Your task to perform on an android device: turn on bluetooth scan Image 0: 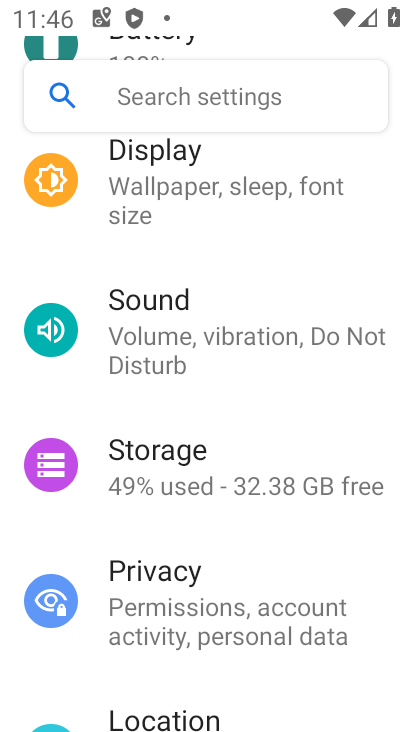
Step 0: drag from (274, 514) to (300, 215)
Your task to perform on an android device: turn on bluetooth scan Image 1: 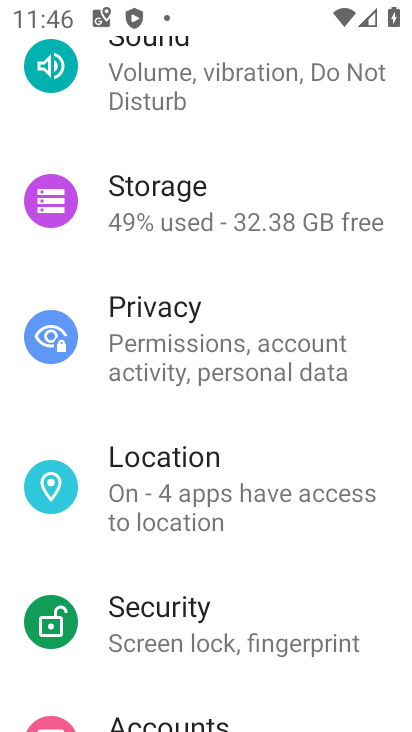
Step 1: click (149, 493)
Your task to perform on an android device: turn on bluetooth scan Image 2: 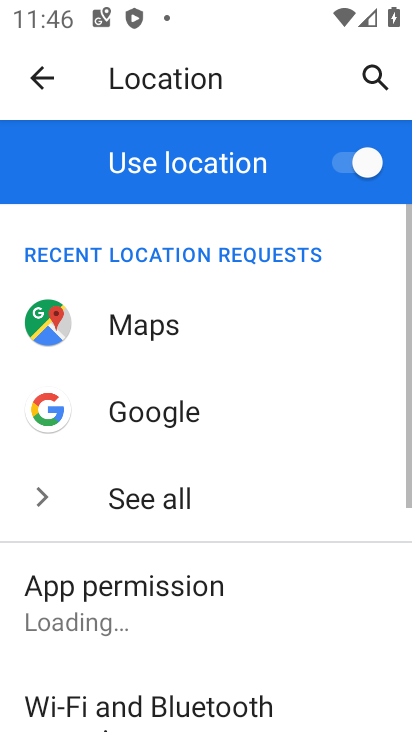
Step 2: drag from (245, 562) to (283, 30)
Your task to perform on an android device: turn on bluetooth scan Image 3: 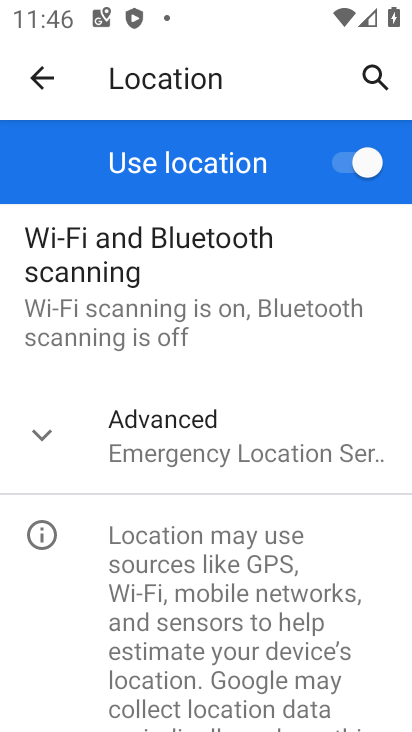
Step 3: click (141, 297)
Your task to perform on an android device: turn on bluetooth scan Image 4: 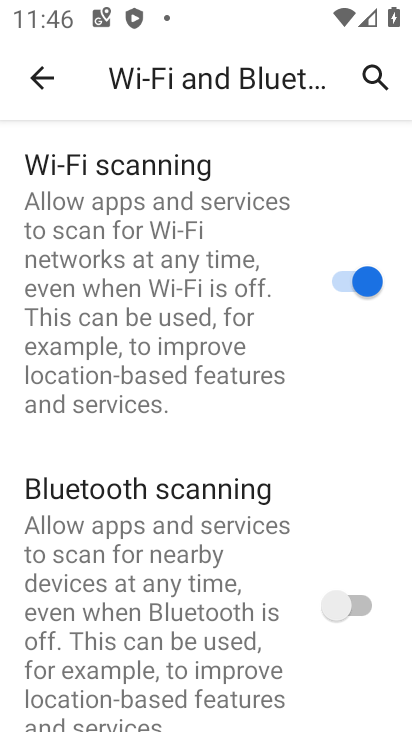
Step 4: click (332, 608)
Your task to perform on an android device: turn on bluetooth scan Image 5: 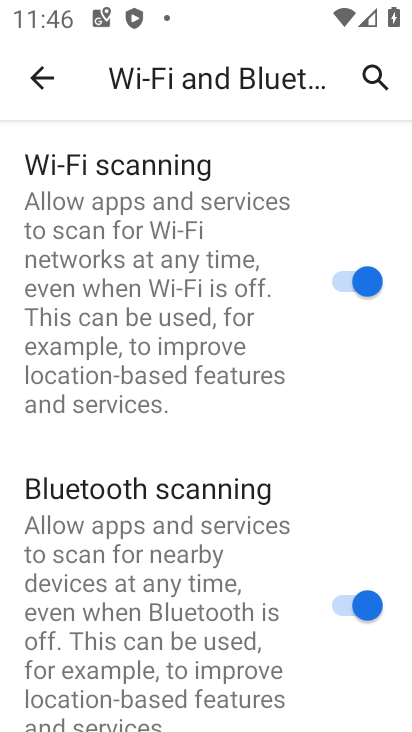
Step 5: task complete